Your task to perform on an android device: Open the calendar app, open the side menu, and click the "Day" option Image 0: 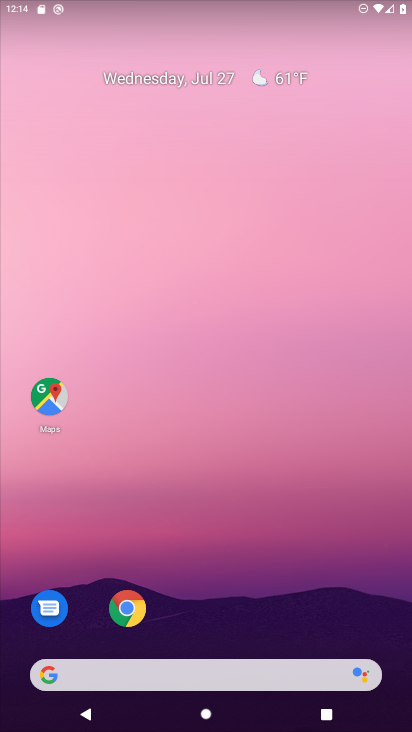
Step 0: press home button
Your task to perform on an android device: Open the calendar app, open the side menu, and click the "Day" option Image 1: 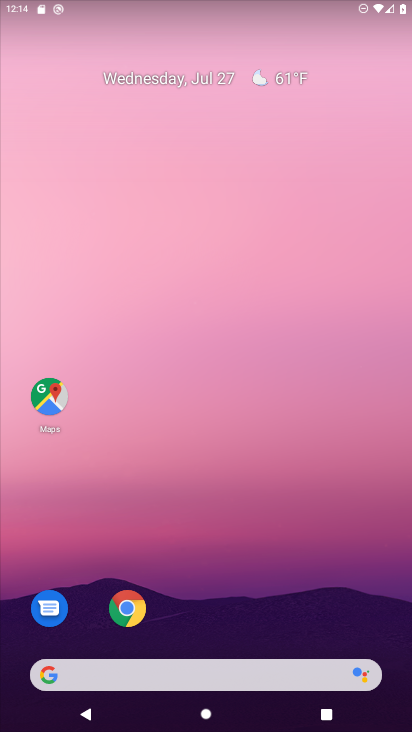
Step 1: drag from (334, 578) to (353, 206)
Your task to perform on an android device: Open the calendar app, open the side menu, and click the "Day" option Image 2: 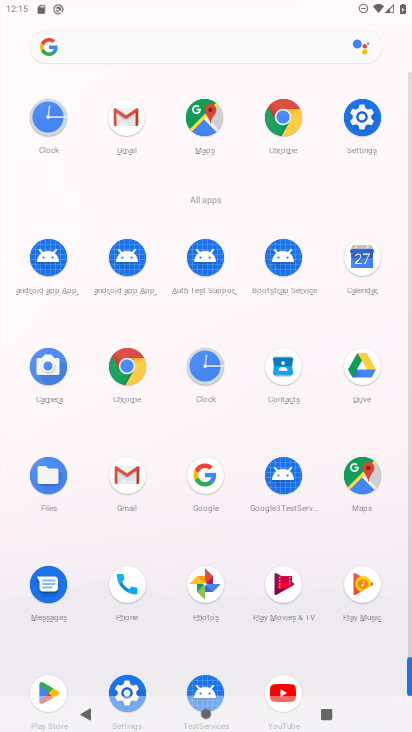
Step 2: click (369, 262)
Your task to perform on an android device: Open the calendar app, open the side menu, and click the "Day" option Image 3: 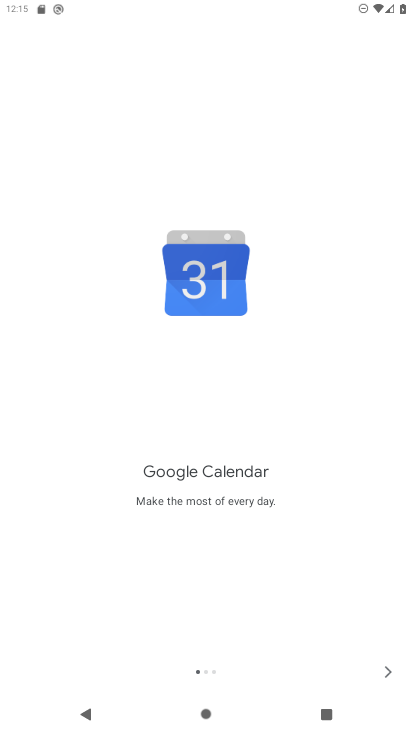
Step 3: click (383, 669)
Your task to perform on an android device: Open the calendar app, open the side menu, and click the "Day" option Image 4: 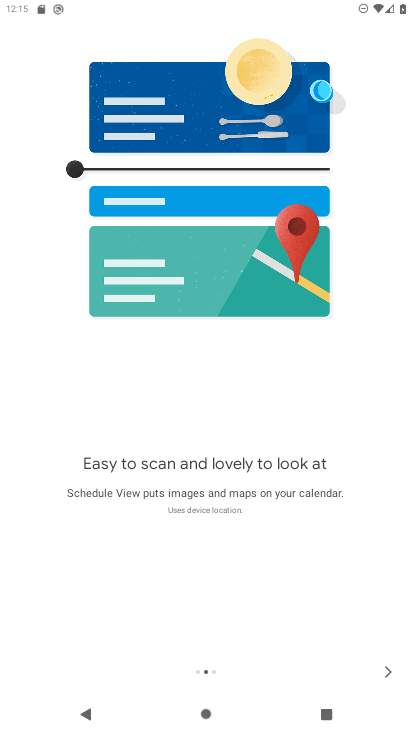
Step 4: click (383, 669)
Your task to perform on an android device: Open the calendar app, open the side menu, and click the "Day" option Image 5: 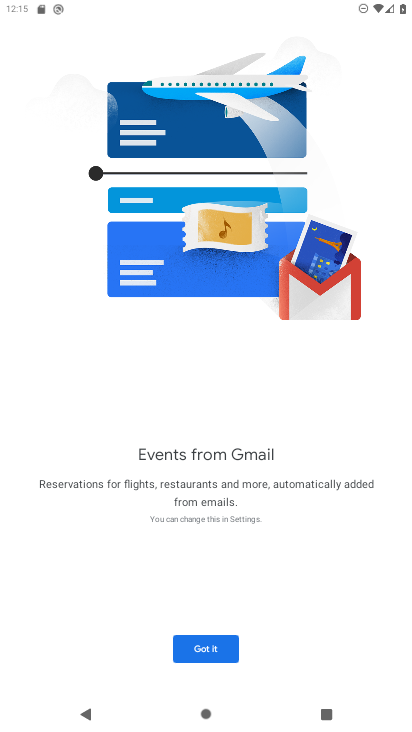
Step 5: click (201, 660)
Your task to perform on an android device: Open the calendar app, open the side menu, and click the "Day" option Image 6: 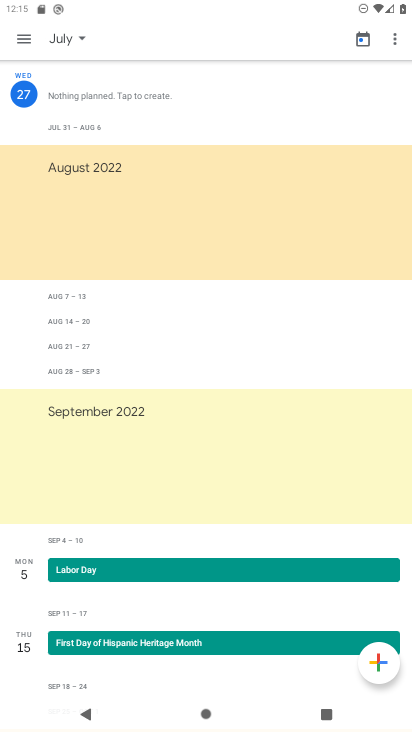
Step 6: click (29, 41)
Your task to perform on an android device: Open the calendar app, open the side menu, and click the "Day" option Image 7: 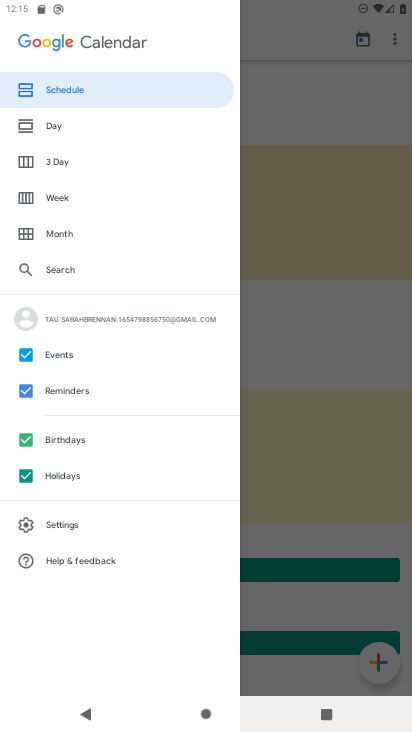
Step 7: click (56, 127)
Your task to perform on an android device: Open the calendar app, open the side menu, and click the "Day" option Image 8: 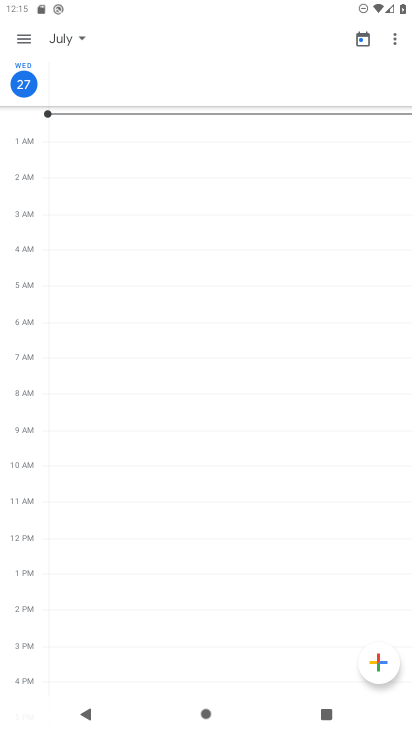
Step 8: task complete